Your task to perform on an android device: Show me productivity apps on the Play Store Image 0: 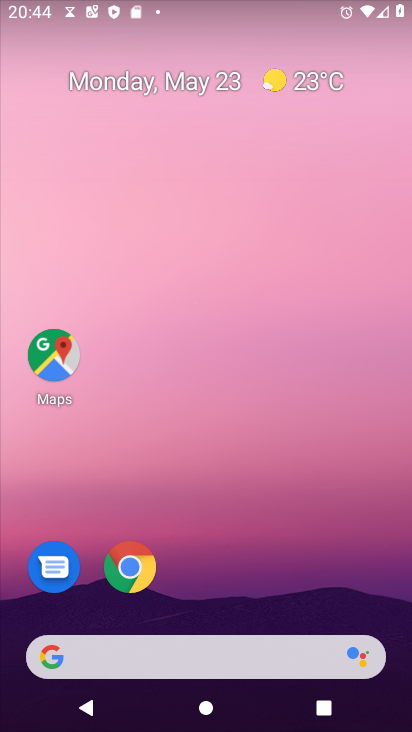
Step 0: drag from (166, 435) to (133, 104)
Your task to perform on an android device: Show me productivity apps on the Play Store Image 1: 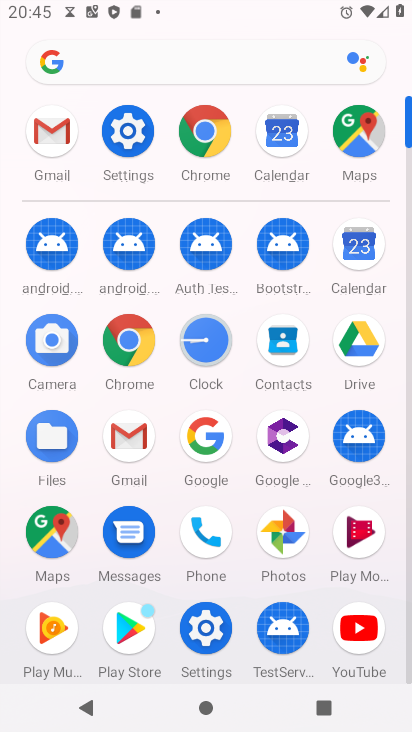
Step 1: click (137, 628)
Your task to perform on an android device: Show me productivity apps on the Play Store Image 2: 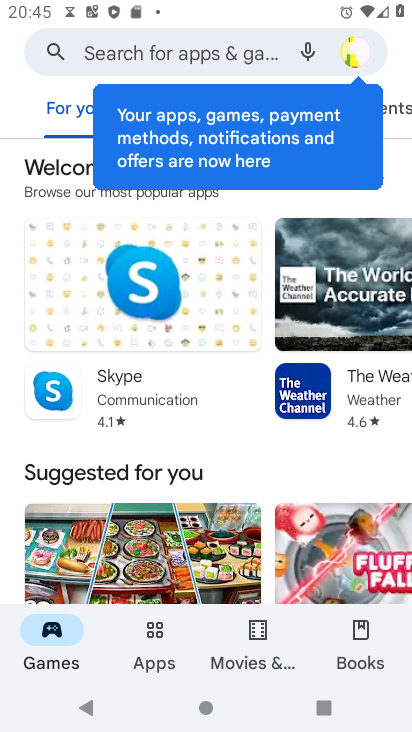
Step 2: click (150, 640)
Your task to perform on an android device: Show me productivity apps on the Play Store Image 3: 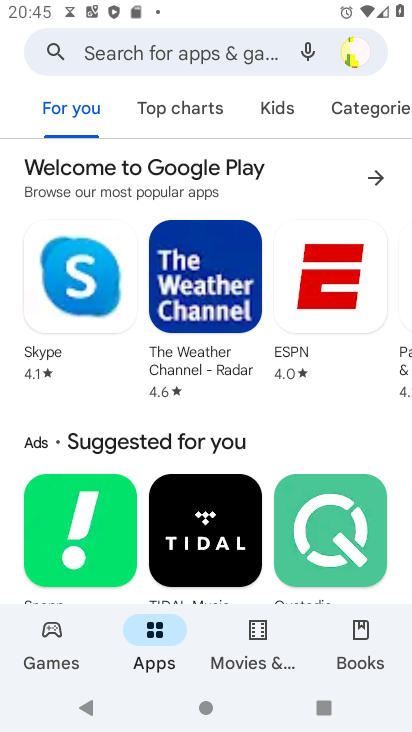
Step 3: task complete